Your task to perform on an android device: change the clock display to show seconds Image 0: 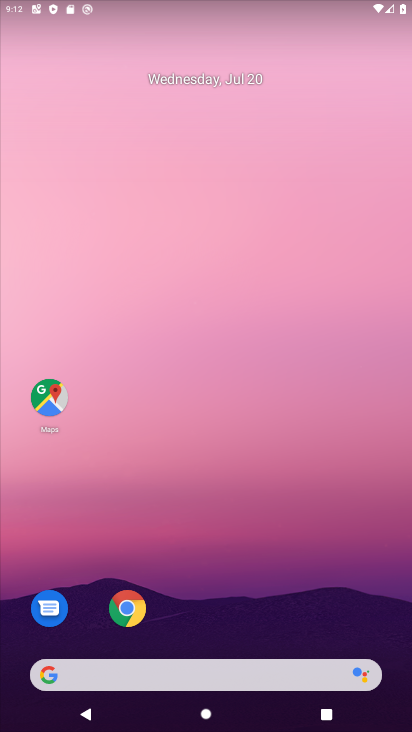
Step 0: drag from (243, 686) to (291, 276)
Your task to perform on an android device: change the clock display to show seconds Image 1: 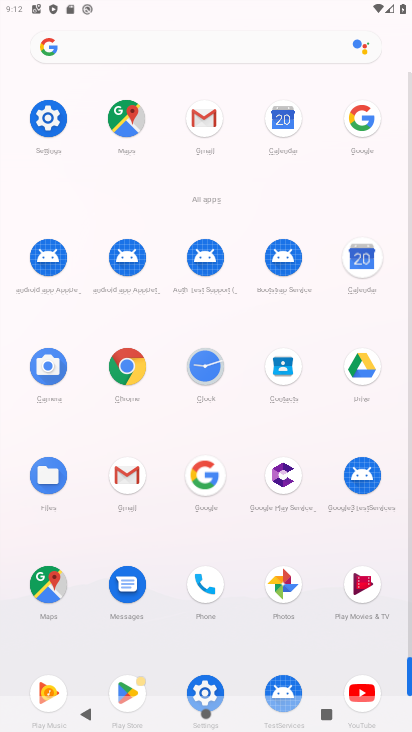
Step 1: click (199, 365)
Your task to perform on an android device: change the clock display to show seconds Image 2: 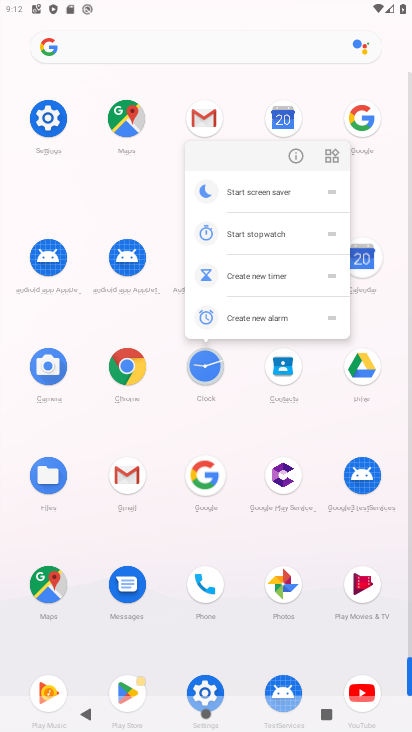
Step 2: click (197, 370)
Your task to perform on an android device: change the clock display to show seconds Image 3: 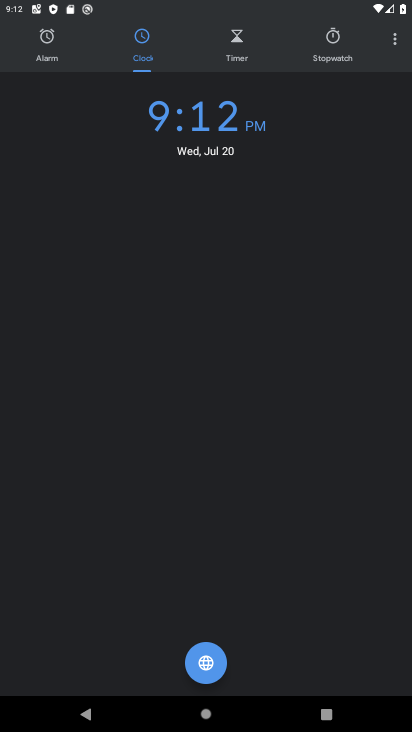
Step 3: click (391, 34)
Your task to perform on an android device: change the clock display to show seconds Image 4: 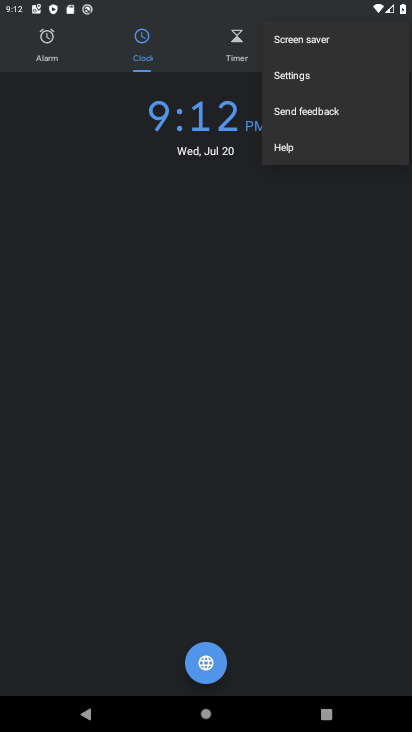
Step 4: click (330, 73)
Your task to perform on an android device: change the clock display to show seconds Image 5: 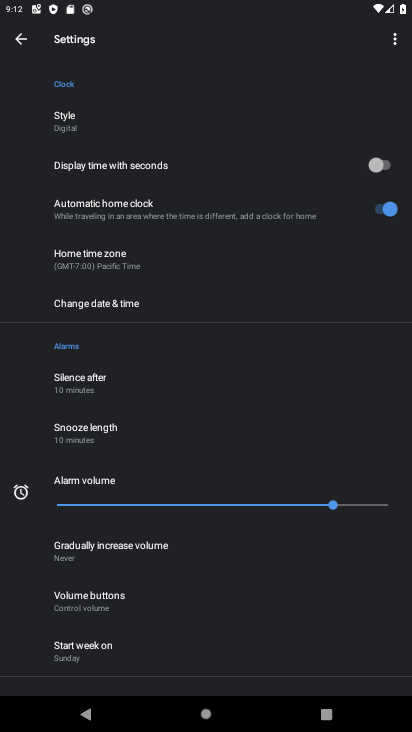
Step 5: click (382, 167)
Your task to perform on an android device: change the clock display to show seconds Image 6: 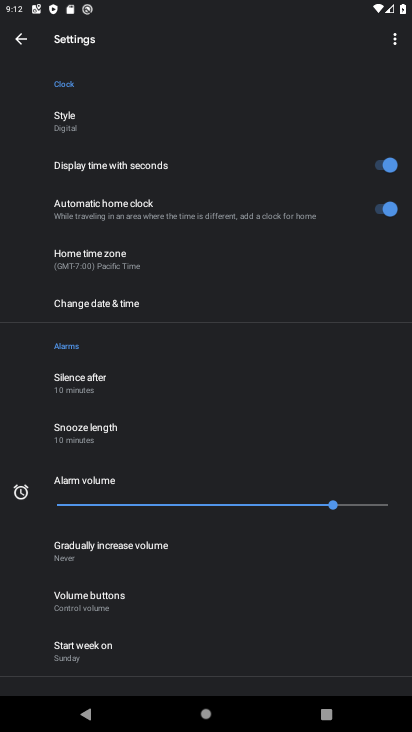
Step 6: task complete